Your task to perform on an android device: Turn on the flashlight Image 0: 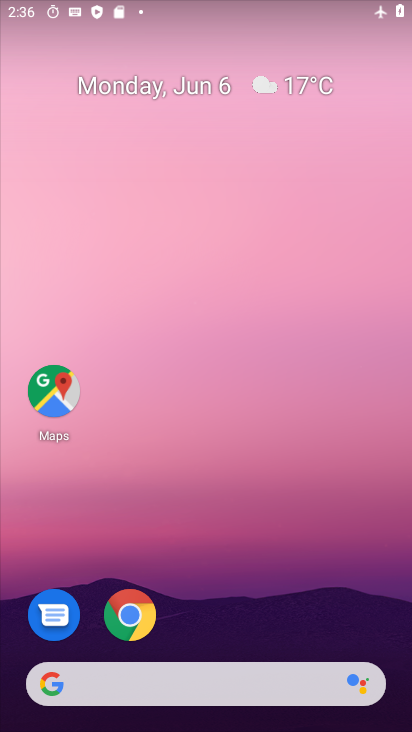
Step 0: drag from (216, 649) to (243, 425)
Your task to perform on an android device: Turn on the flashlight Image 1: 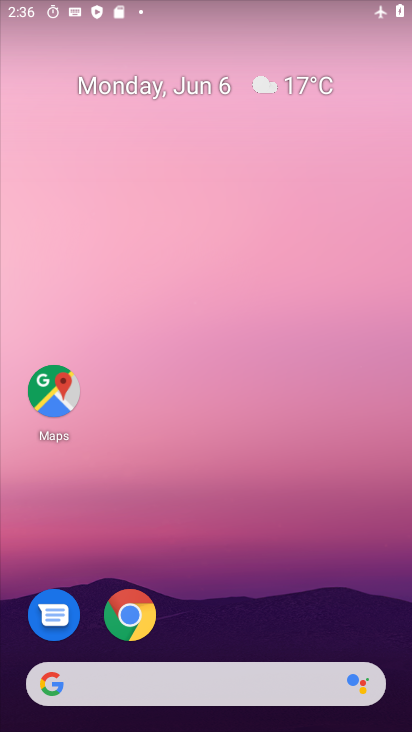
Step 1: drag from (214, 668) to (235, 233)
Your task to perform on an android device: Turn on the flashlight Image 2: 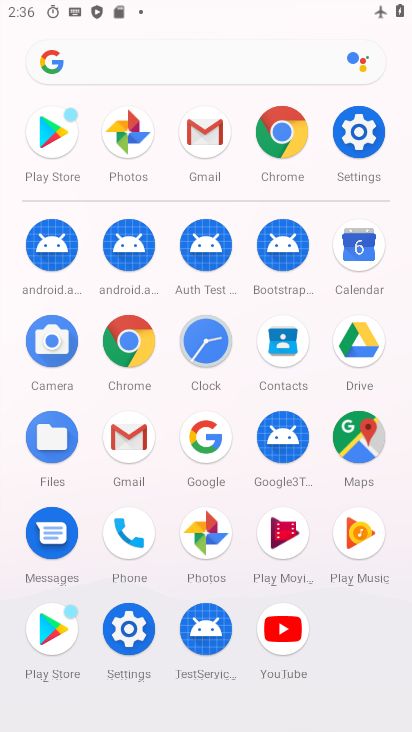
Step 2: click (356, 133)
Your task to perform on an android device: Turn on the flashlight Image 3: 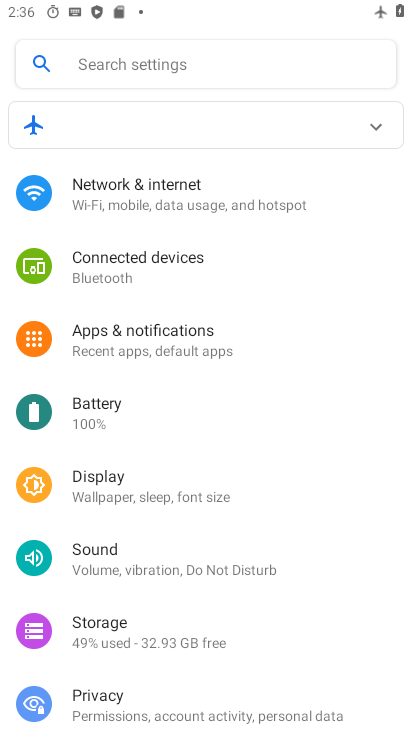
Step 3: click (218, 73)
Your task to perform on an android device: Turn on the flashlight Image 4: 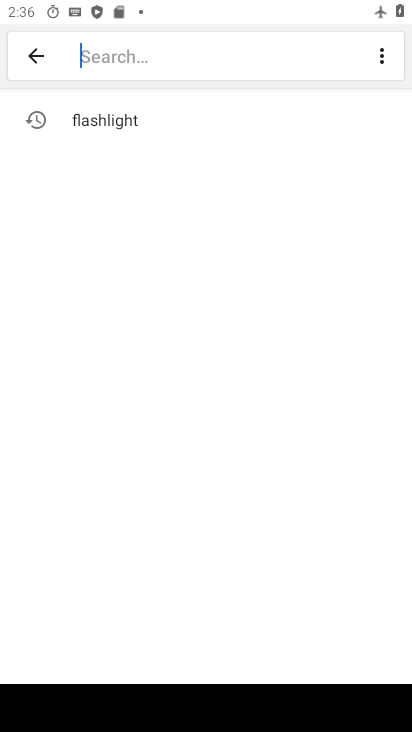
Step 4: type "flashlight"
Your task to perform on an android device: Turn on the flashlight Image 5: 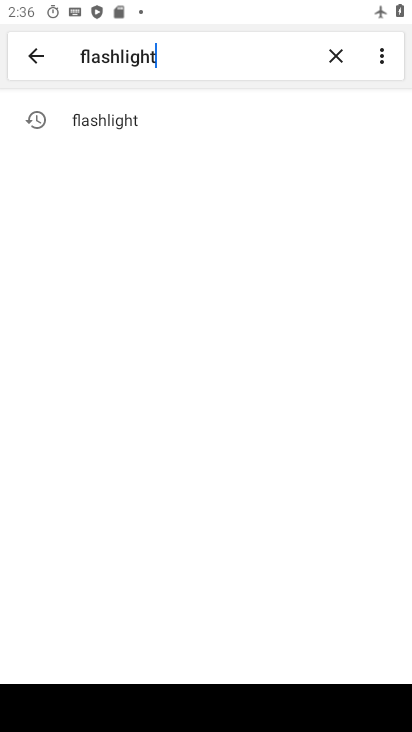
Step 5: click (130, 114)
Your task to perform on an android device: Turn on the flashlight Image 6: 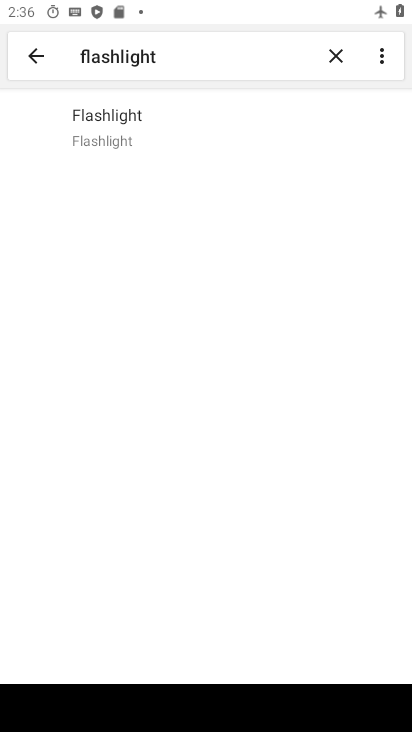
Step 6: task complete